Your task to perform on an android device: stop showing notifications on the lock screen Image 0: 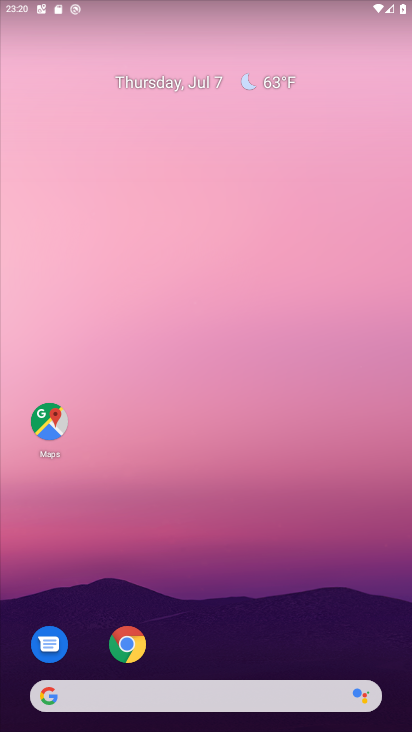
Step 0: drag from (244, 636) to (204, 38)
Your task to perform on an android device: stop showing notifications on the lock screen Image 1: 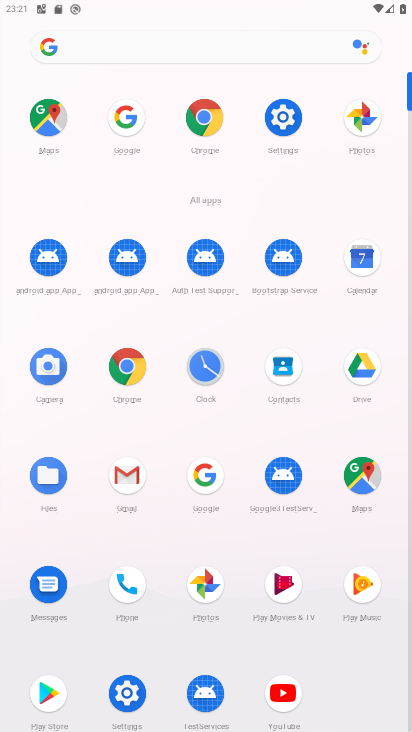
Step 1: click (290, 127)
Your task to perform on an android device: stop showing notifications on the lock screen Image 2: 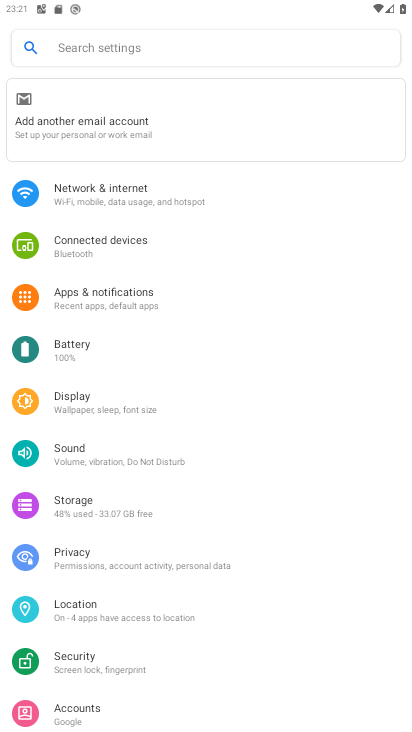
Step 2: click (73, 292)
Your task to perform on an android device: stop showing notifications on the lock screen Image 3: 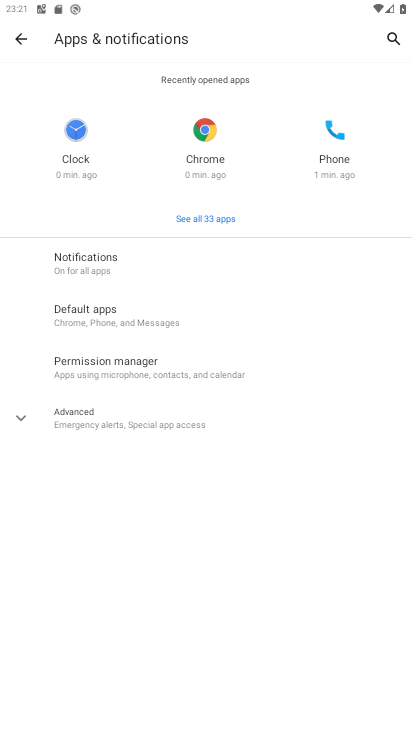
Step 3: click (74, 262)
Your task to perform on an android device: stop showing notifications on the lock screen Image 4: 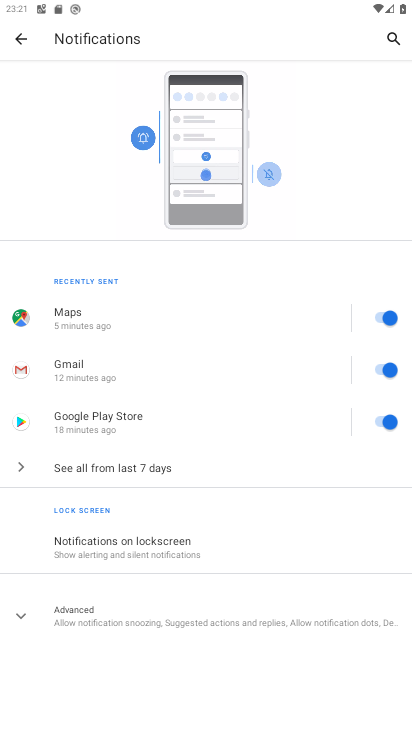
Step 4: click (110, 545)
Your task to perform on an android device: stop showing notifications on the lock screen Image 5: 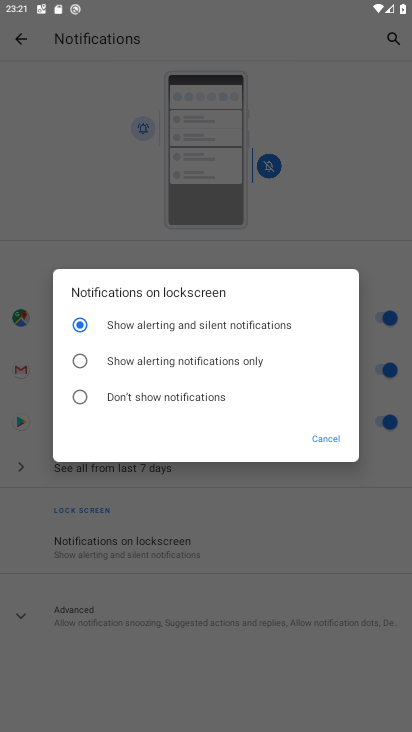
Step 5: click (78, 392)
Your task to perform on an android device: stop showing notifications on the lock screen Image 6: 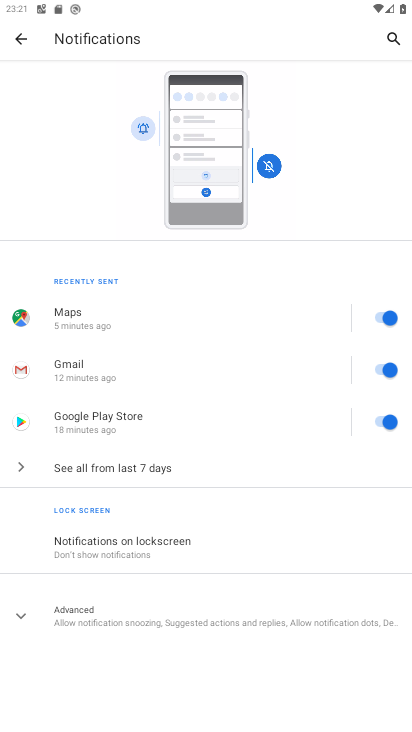
Step 6: task complete